Your task to perform on an android device: change text size in settings app Image 0: 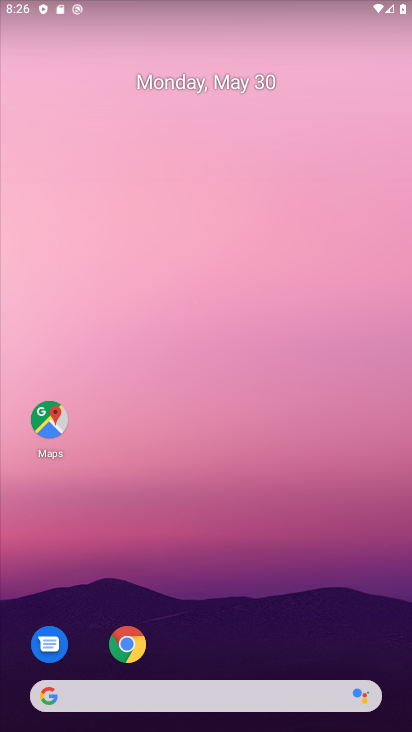
Step 0: press home button
Your task to perform on an android device: change text size in settings app Image 1: 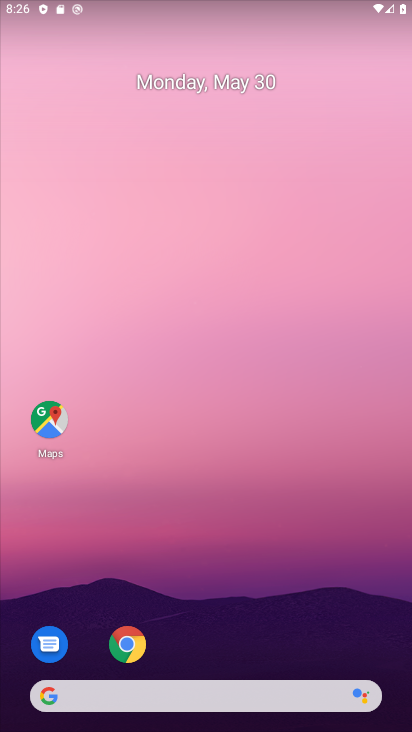
Step 1: drag from (248, 618) to (298, 7)
Your task to perform on an android device: change text size in settings app Image 2: 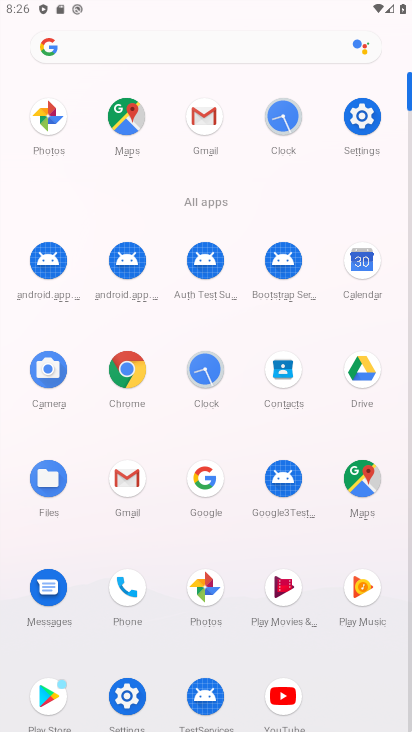
Step 2: click (364, 126)
Your task to perform on an android device: change text size in settings app Image 3: 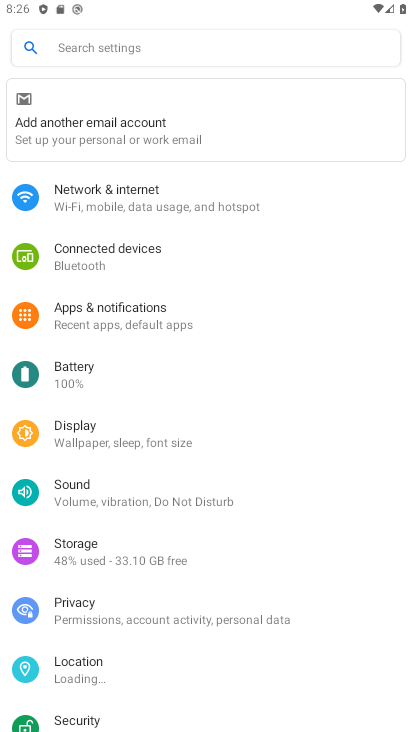
Step 3: click (144, 428)
Your task to perform on an android device: change text size in settings app Image 4: 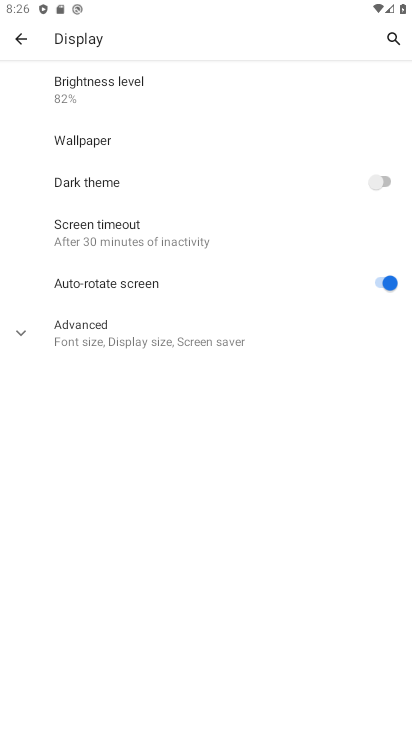
Step 4: click (84, 325)
Your task to perform on an android device: change text size in settings app Image 5: 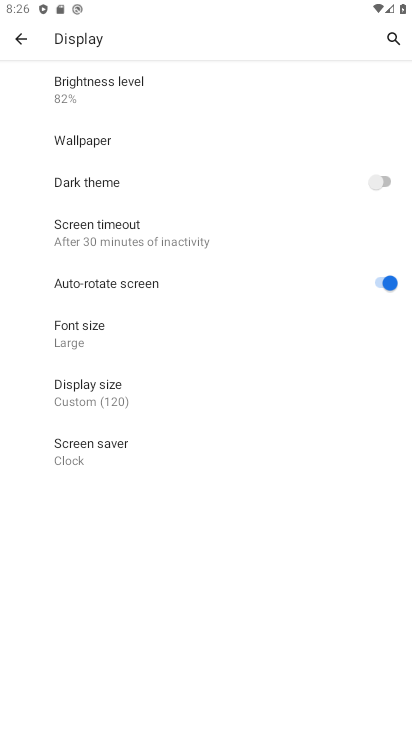
Step 5: click (87, 343)
Your task to perform on an android device: change text size in settings app Image 6: 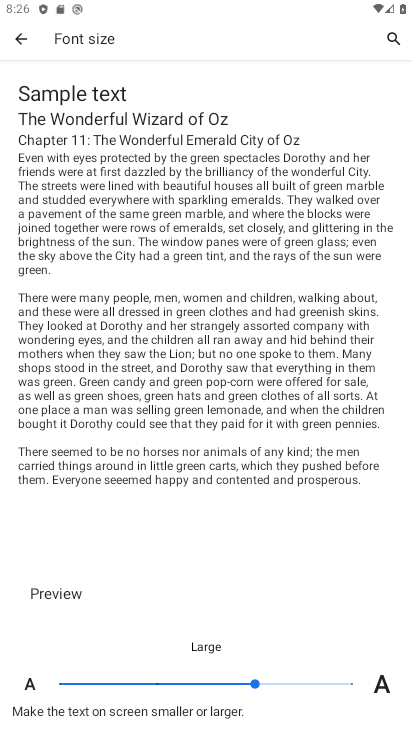
Step 6: task complete